Your task to perform on an android device: open app "Reddit" Image 0: 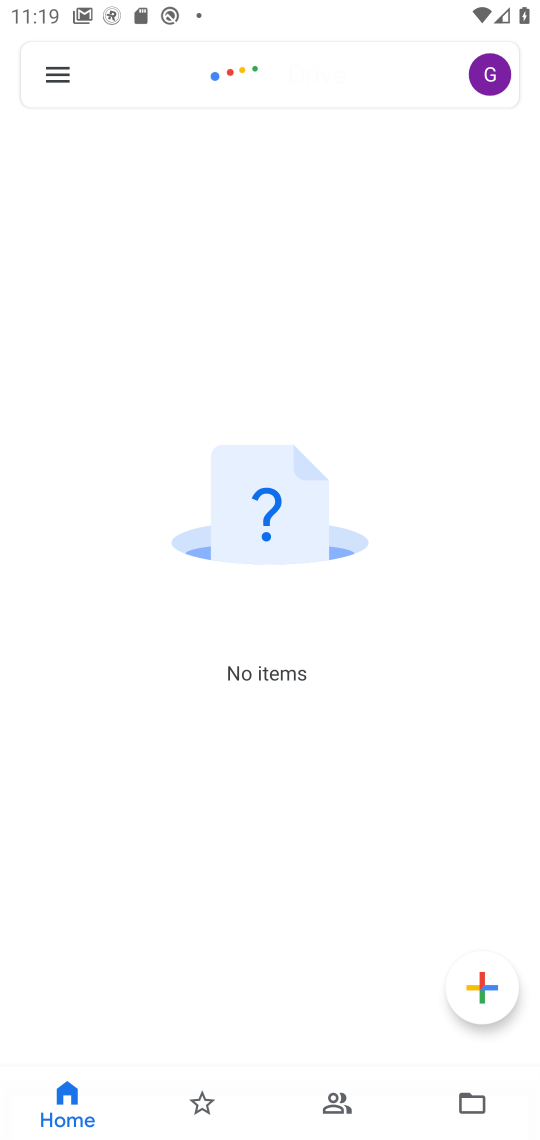
Step 0: press home button
Your task to perform on an android device: open app "Reddit" Image 1: 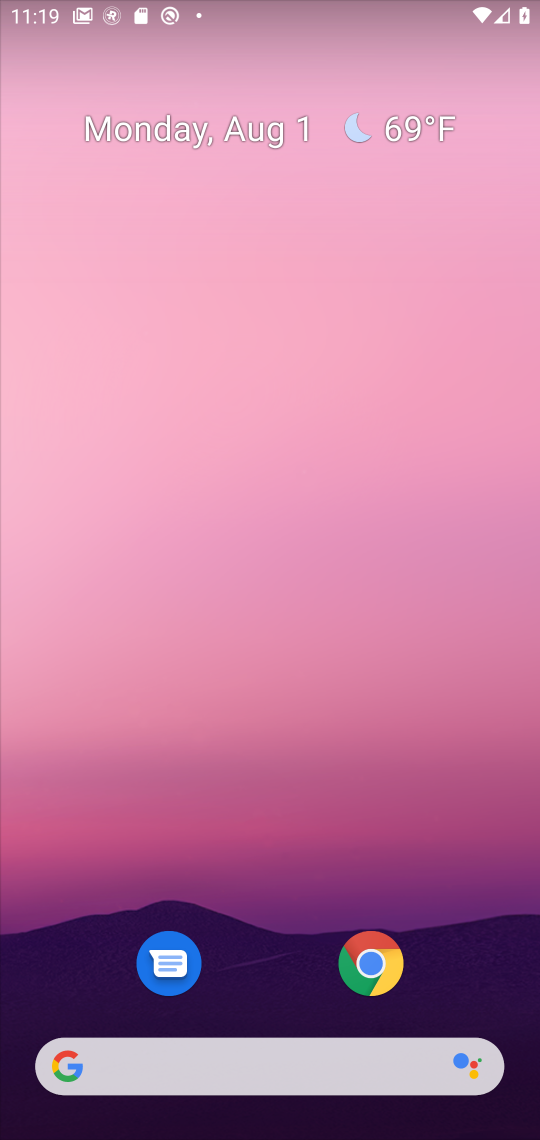
Step 1: drag from (259, 965) to (156, 6)
Your task to perform on an android device: open app "Reddit" Image 2: 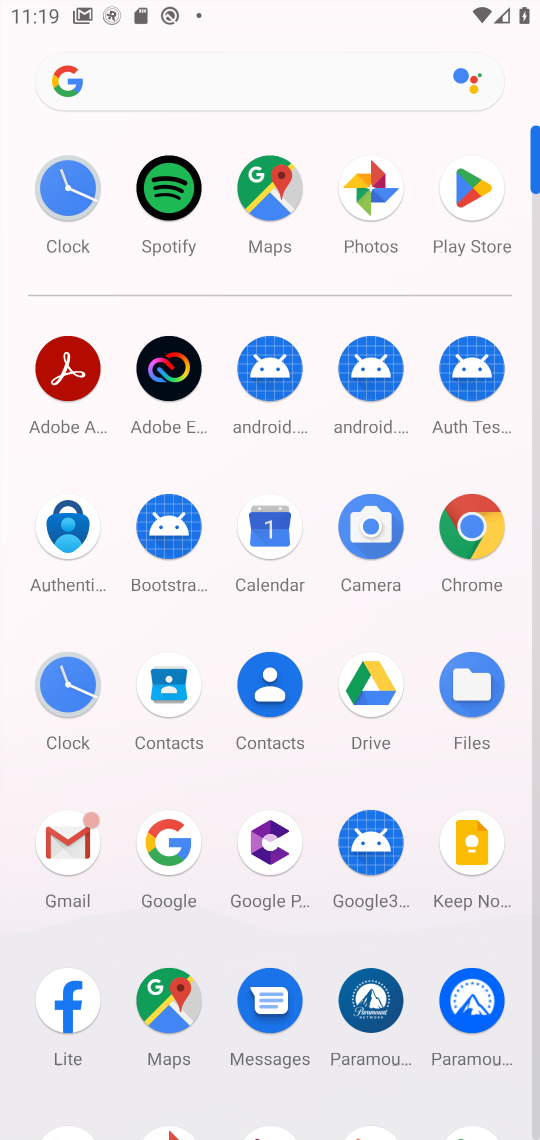
Step 2: click (481, 194)
Your task to perform on an android device: open app "Reddit" Image 3: 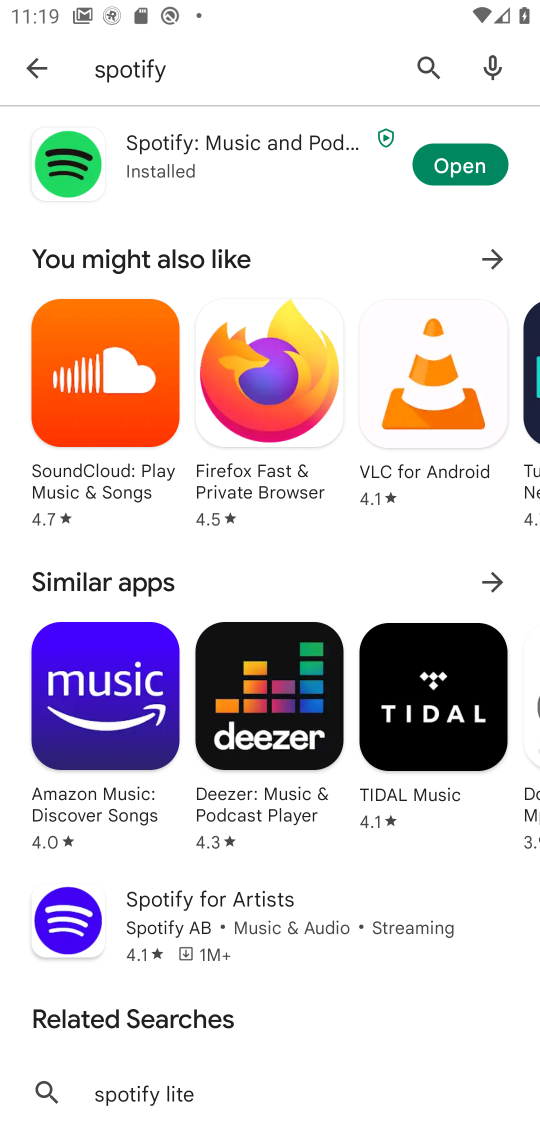
Step 3: click (192, 81)
Your task to perform on an android device: open app "Reddit" Image 4: 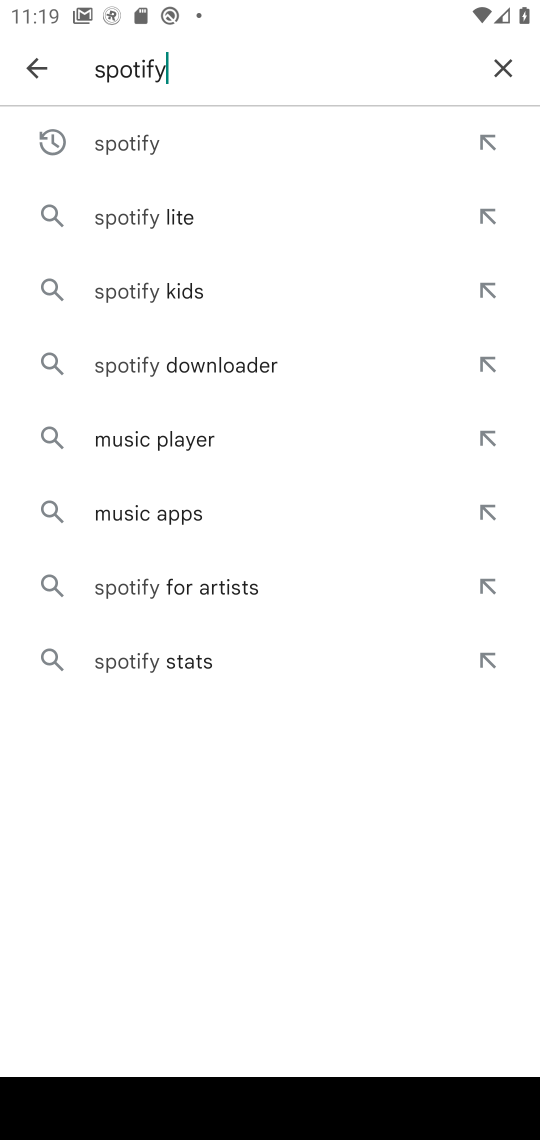
Step 4: click (512, 54)
Your task to perform on an android device: open app "Reddit" Image 5: 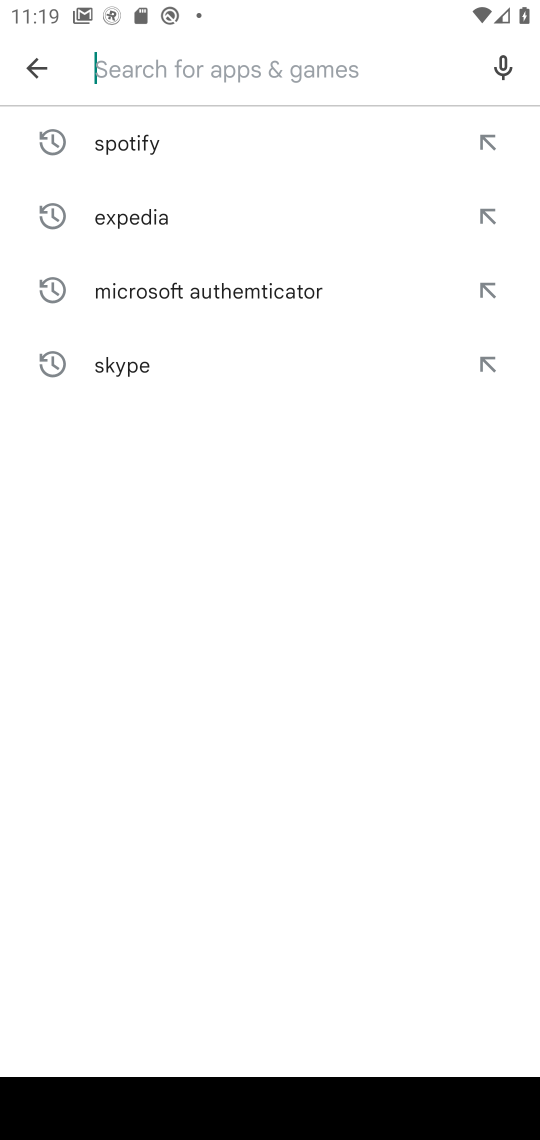
Step 5: type "Reddit"
Your task to perform on an android device: open app "Reddit" Image 6: 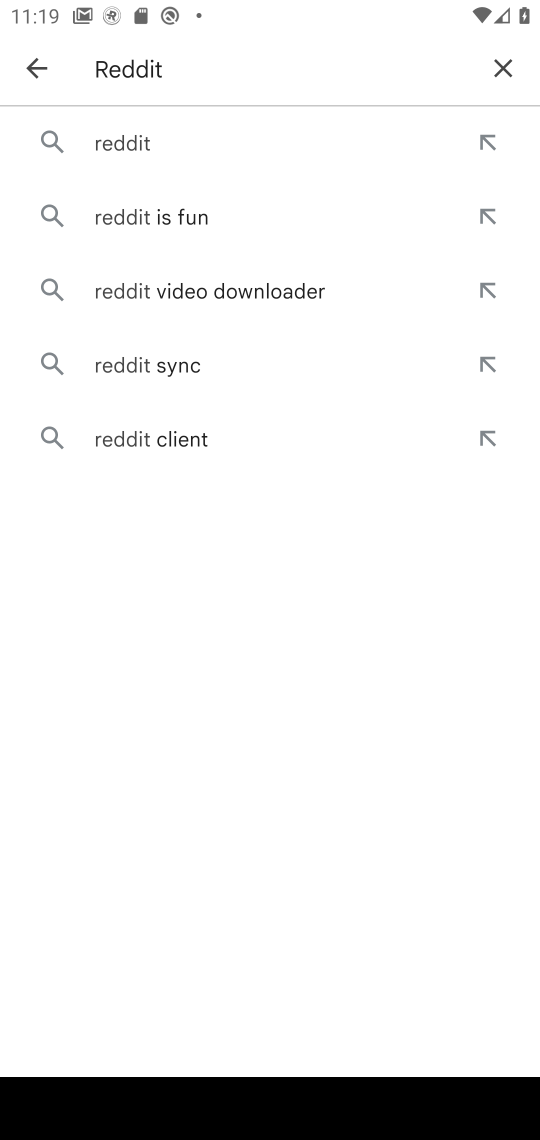
Step 6: click (144, 151)
Your task to perform on an android device: open app "Reddit" Image 7: 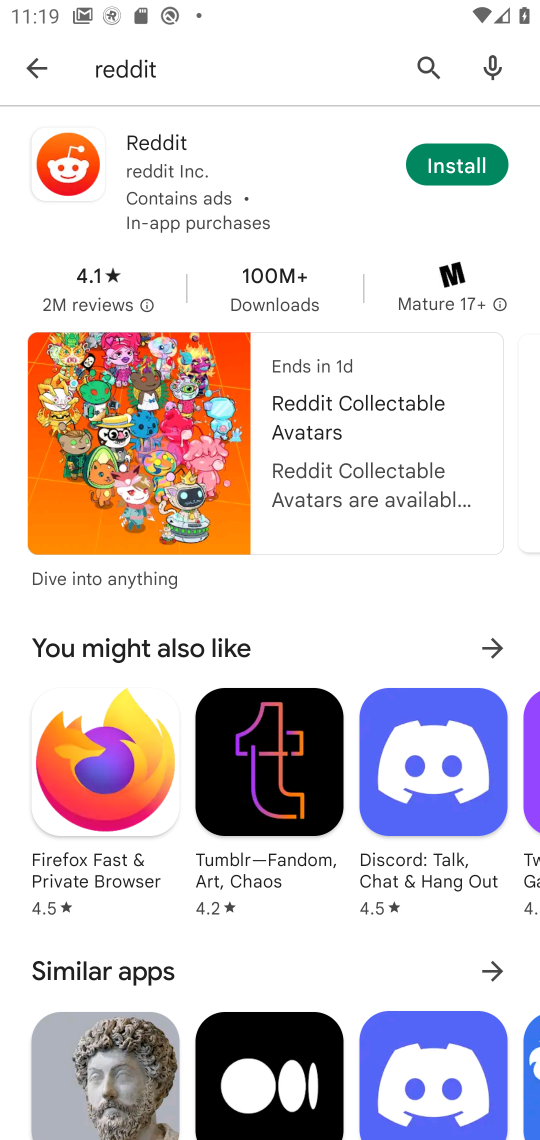
Step 7: click (170, 160)
Your task to perform on an android device: open app "Reddit" Image 8: 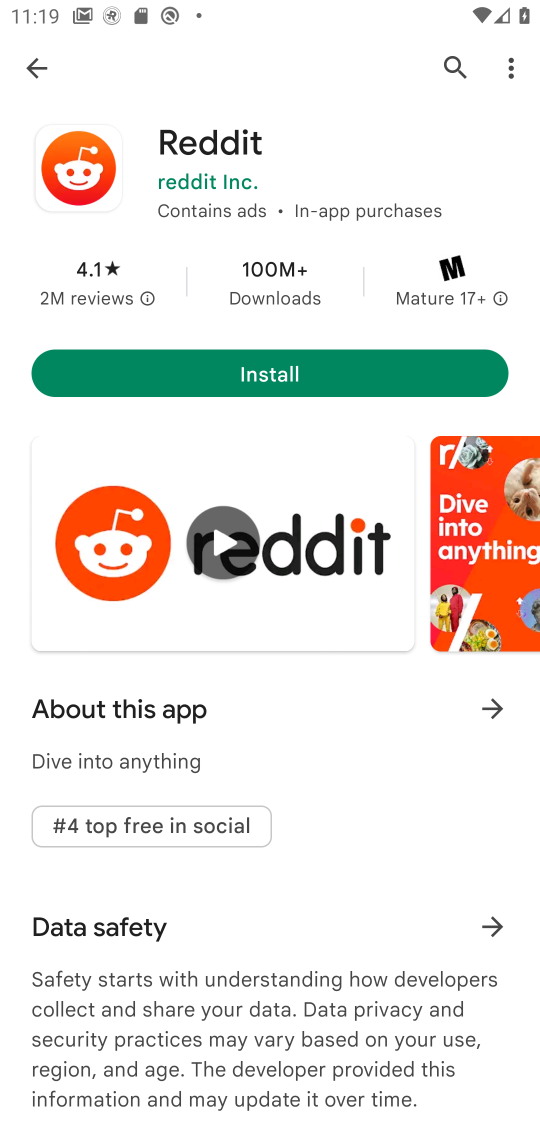
Step 8: task complete